Your task to perform on an android device: Open Youtube and go to "Your channel" Image 0: 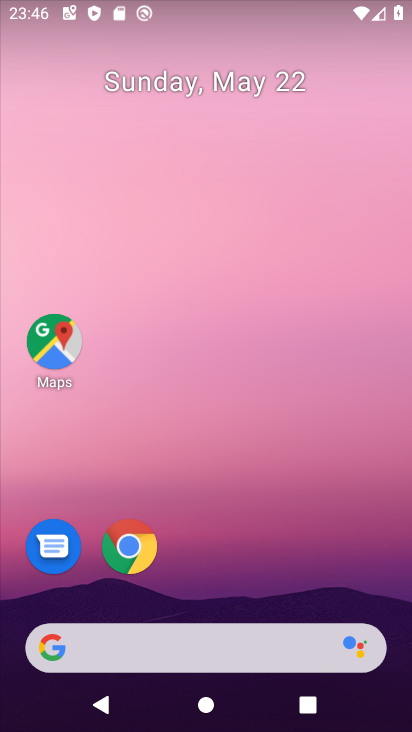
Step 0: drag from (209, 612) to (220, 140)
Your task to perform on an android device: Open Youtube and go to "Your channel" Image 1: 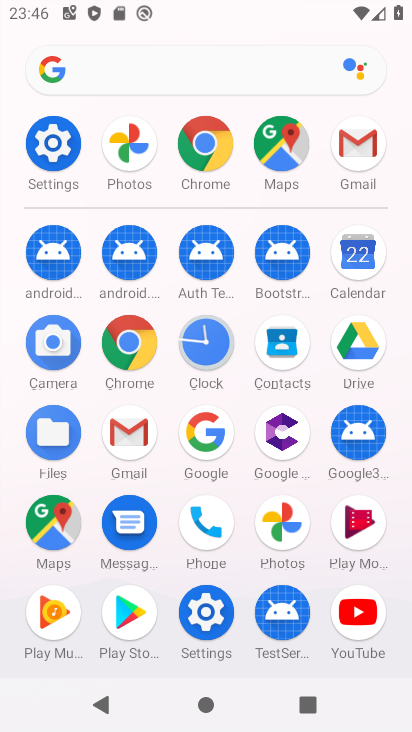
Step 1: click (352, 607)
Your task to perform on an android device: Open Youtube and go to "Your channel" Image 2: 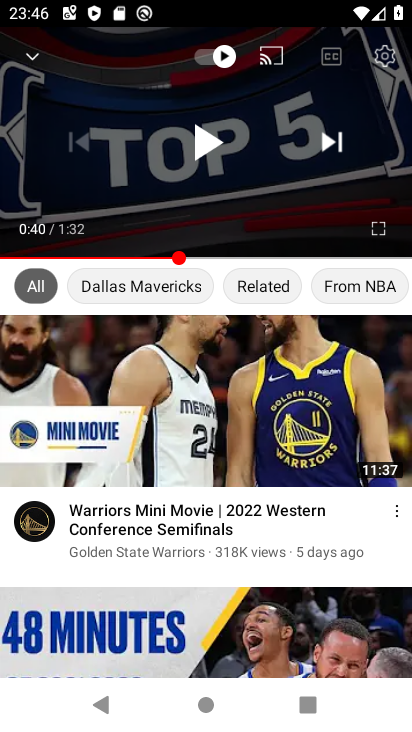
Step 2: drag from (216, 629) to (300, 222)
Your task to perform on an android device: Open Youtube and go to "Your channel" Image 3: 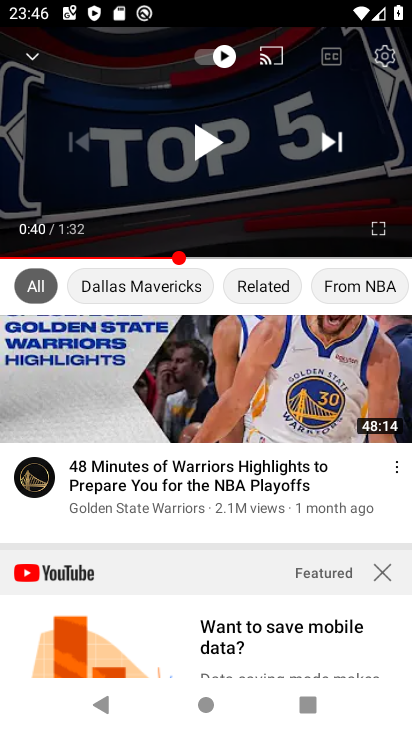
Step 3: drag from (281, 127) to (393, 517)
Your task to perform on an android device: Open Youtube and go to "Your channel" Image 4: 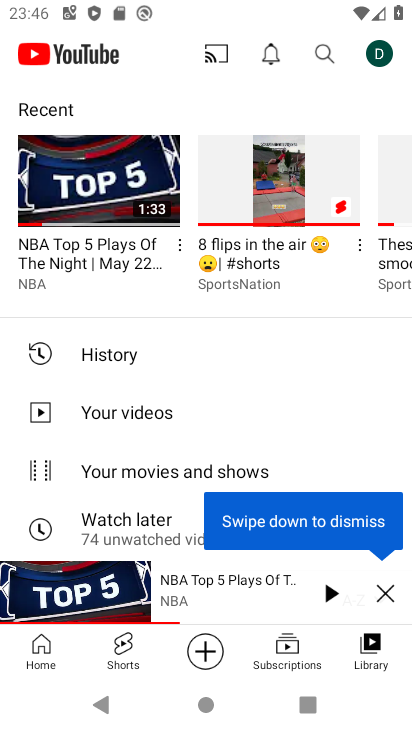
Step 4: click (399, 605)
Your task to perform on an android device: Open Youtube and go to "Your channel" Image 5: 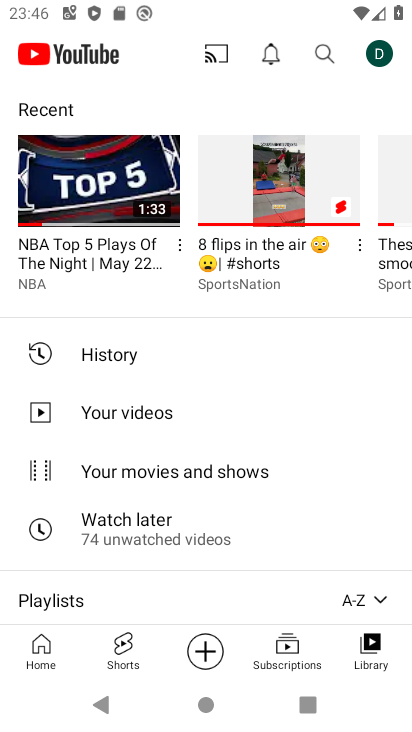
Step 5: click (395, 602)
Your task to perform on an android device: Open Youtube and go to "Your channel" Image 6: 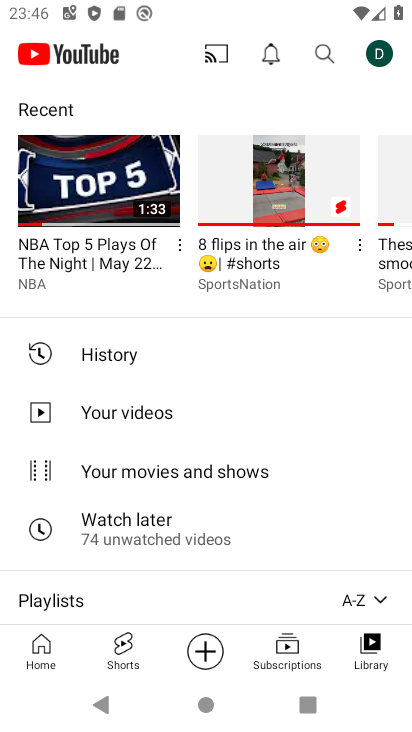
Step 6: click (391, 47)
Your task to perform on an android device: Open Youtube and go to "Your channel" Image 7: 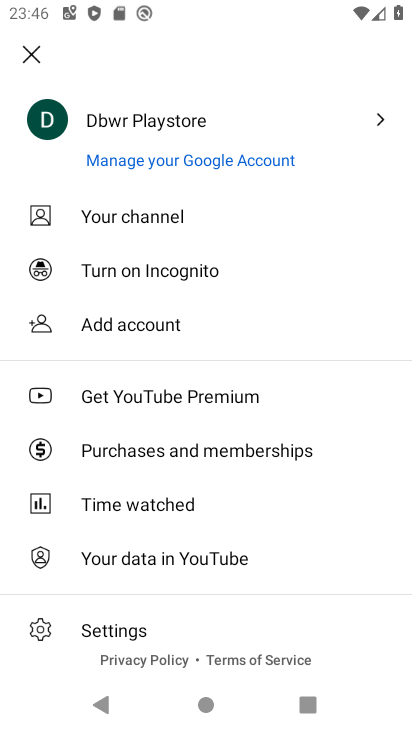
Step 7: click (97, 119)
Your task to perform on an android device: Open Youtube and go to "Your channel" Image 8: 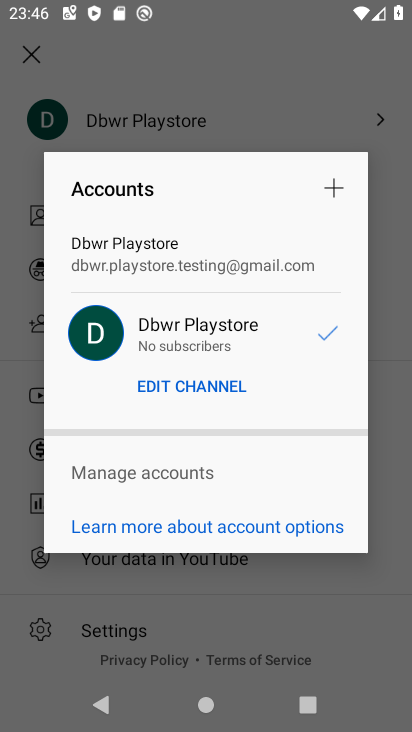
Step 8: task complete